Your task to perform on an android device: See recent photos Image 0: 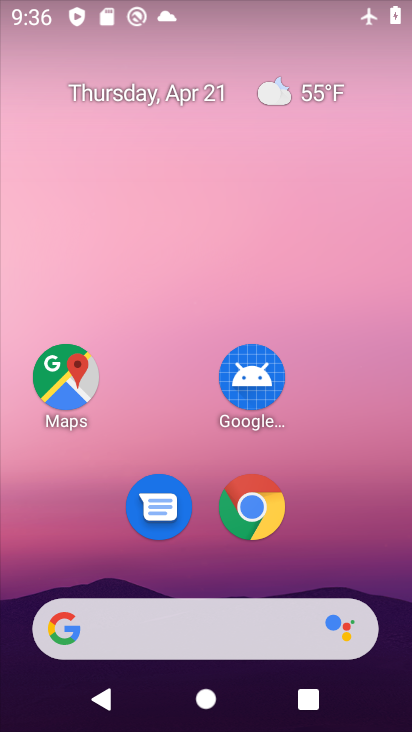
Step 0: drag from (279, 565) to (280, 234)
Your task to perform on an android device: See recent photos Image 1: 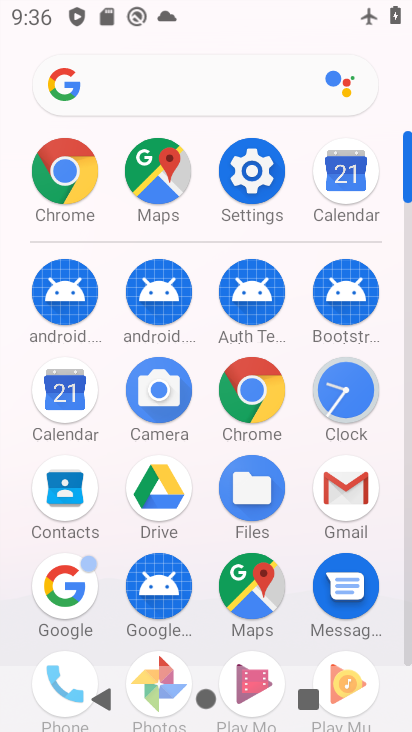
Step 1: drag from (201, 580) to (194, 255)
Your task to perform on an android device: See recent photos Image 2: 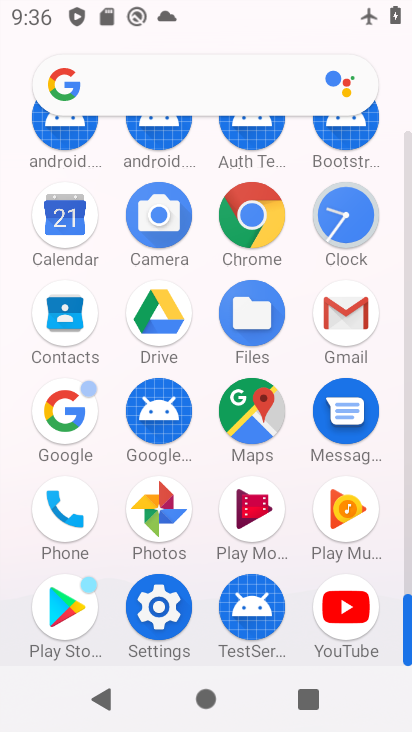
Step 2: click (156, 512)
Your task to perform on an android device: See recent photos Image 3: 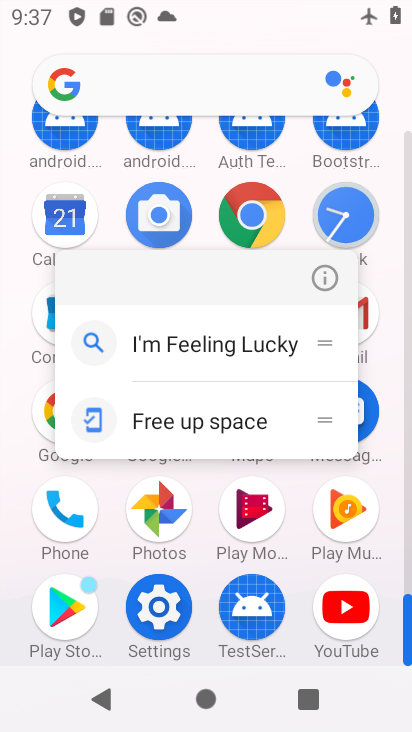
Step 3: click (156, 512)
Your task to perform on an android device: See recent photos Image 4: 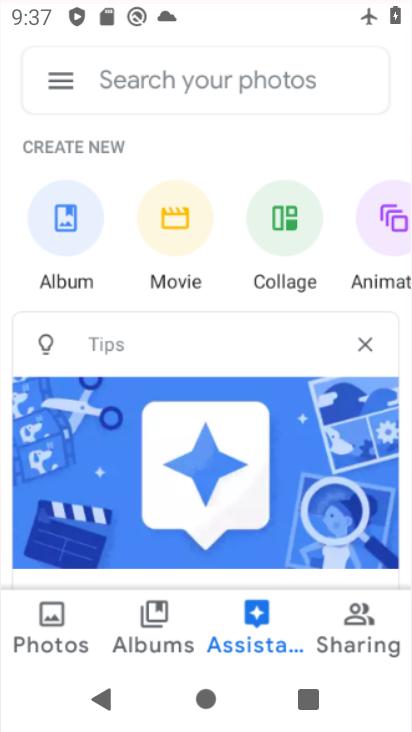
Step 4: click (156, 512)
Your task to perform on an android device: See recent photos Image 5: 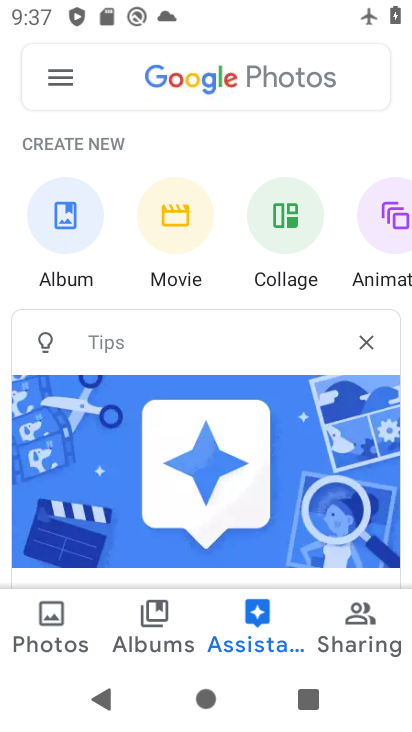
Step 5: click (155, 612)
Your task to perform on an android device: See recent photos Image 6: 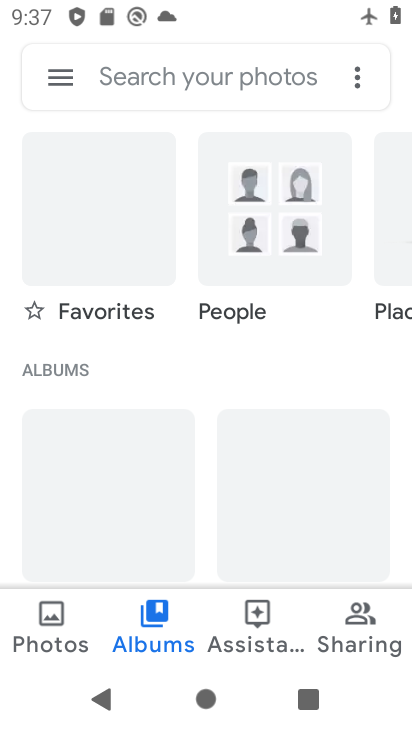
Step 6: click (68, 608)
Your task to perform on an android device: See recent photos Image 7: 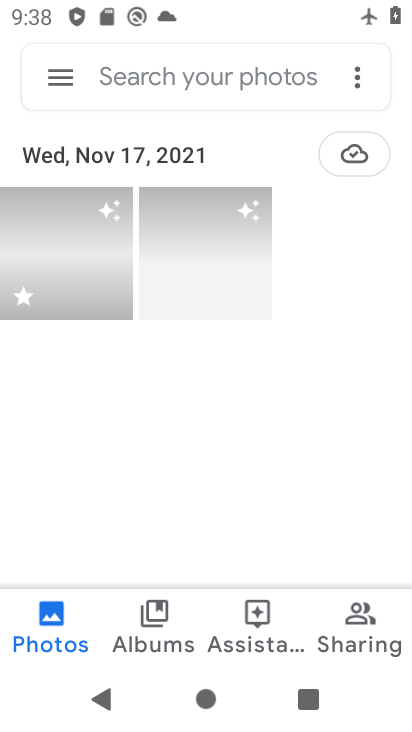
Step 7: click (36, 223)
Your task to perform on an android device: See recent photos Image 8: 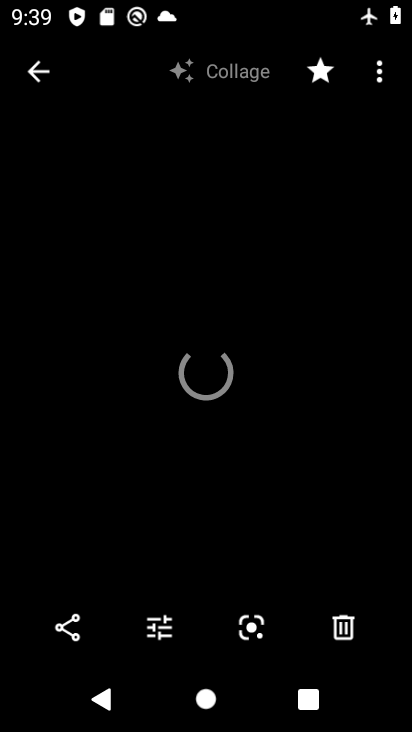
Step 8: task complete